Your task to perform on an android device: check storage Image 0: 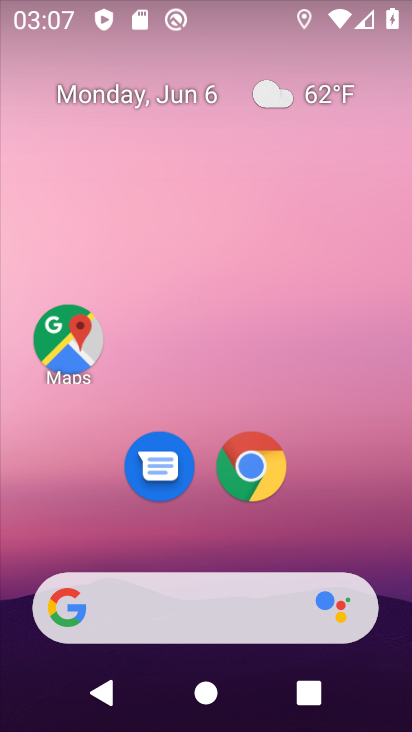
Step 0: drag from (274, 193) to (258, 60)
Your task to perform on an android device: check storage Image 1: 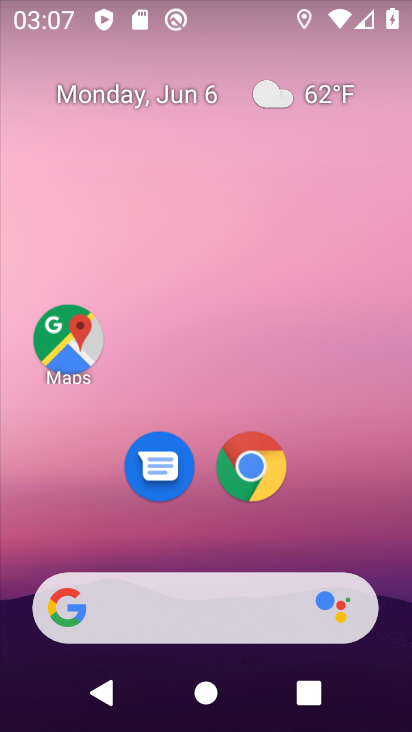
Step 1: drag from (309, 315) to (286, 73)
Your task to perform on an android device: check storage Image 2: 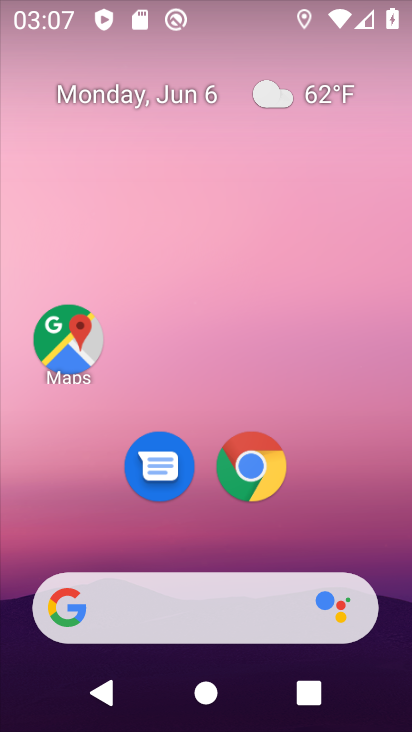
Step 2: drag from (316, 365) to (253, 8)
Your task to perform on an android device: check storage Image 3: 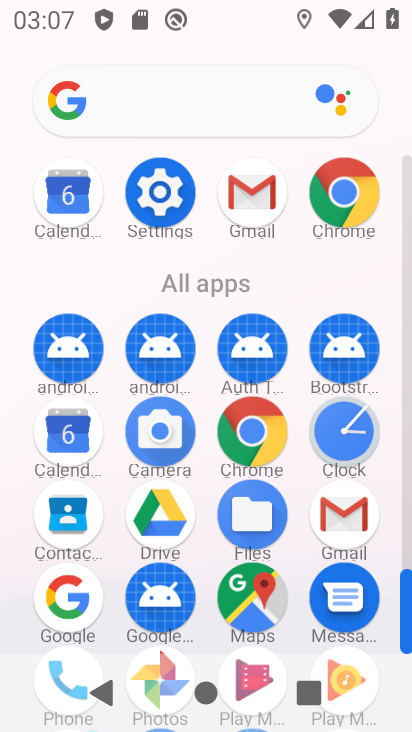
Step 3: click (174, 195)
Your task to perform on an android device: check storage Image 4: 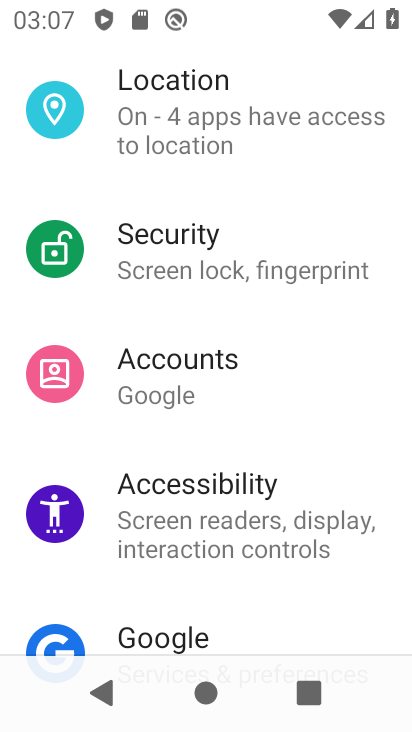
Step 4: drag from (258, 502) to (283, 655)
Your task to perform on an android device: check storage Image 5: 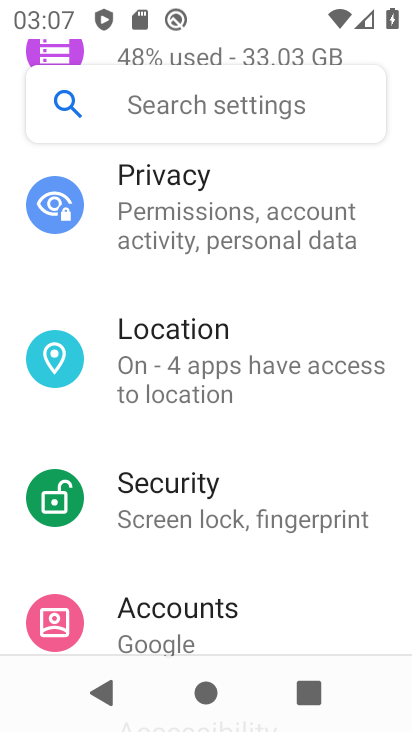
Step 5: drag from (225, 200) to (247, 551)
Your task to perform on an android device: check storage Image 6: 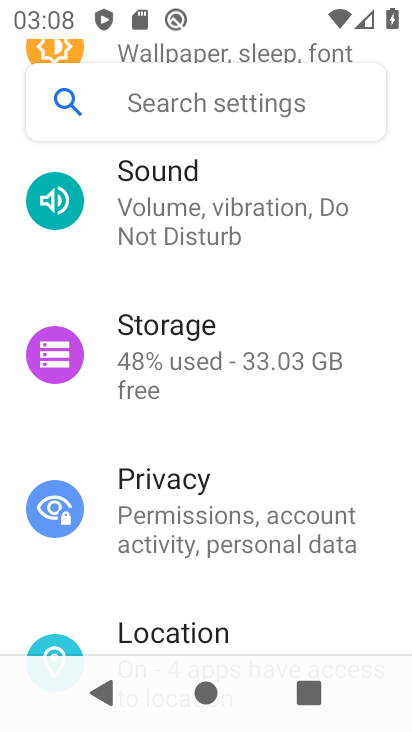
Step 6: click (245, 355)
Your task to perform on an android device: check storage Image 7: 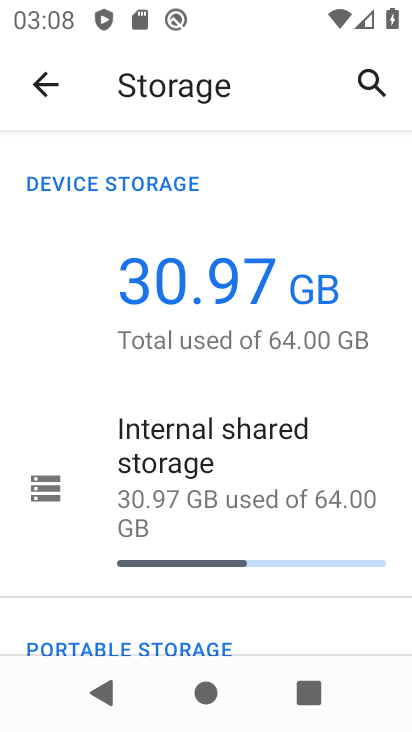
Step 7: task complete